Your task to perform on an android device: Go to internet settings Image 0: 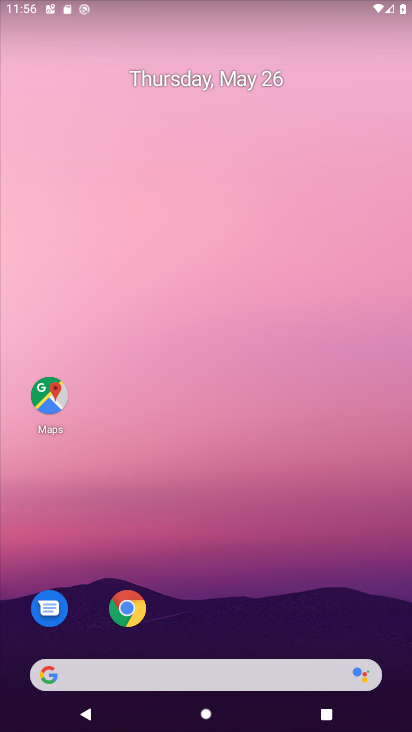
Step 0: drag from (397, 706) to (358, 241)
Your task to perform on an android device: Go to internet settings Image 1: 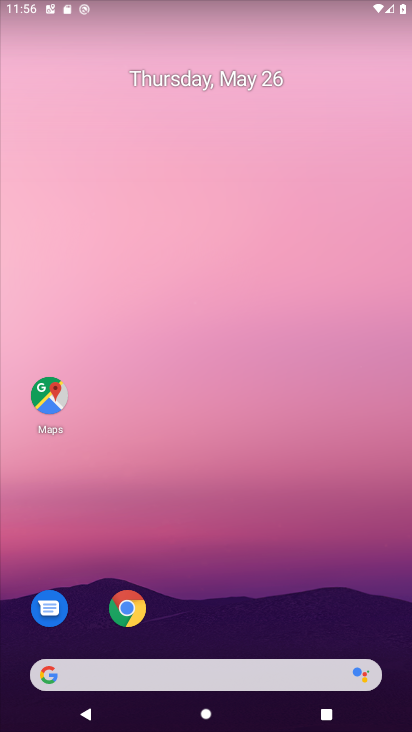
Step 1: drag from (394, 676) to (319, 83)
Your task to perform on an android device: Go to internet settings Image 2: 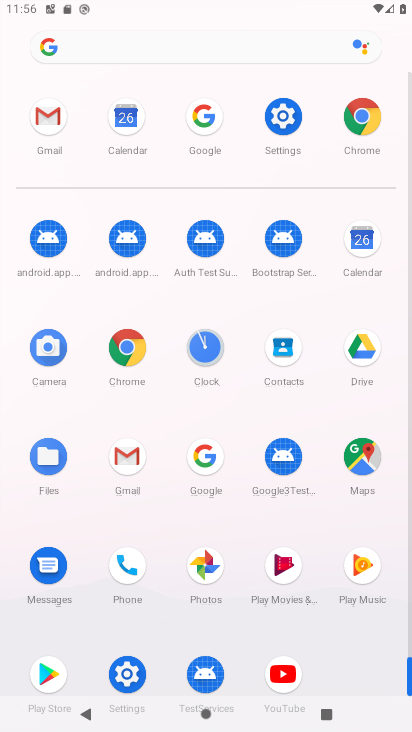
Step 2: click (281, 125)
Your task to perform on an android device: Go to internet settings Image 3: 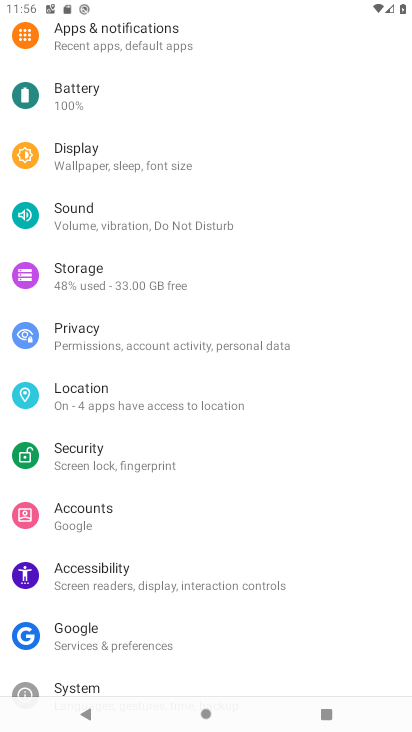
Step 3: drag from (285, 116) to (339, 583)
Your task to perform on an android device: Go to internet settings Image 4: 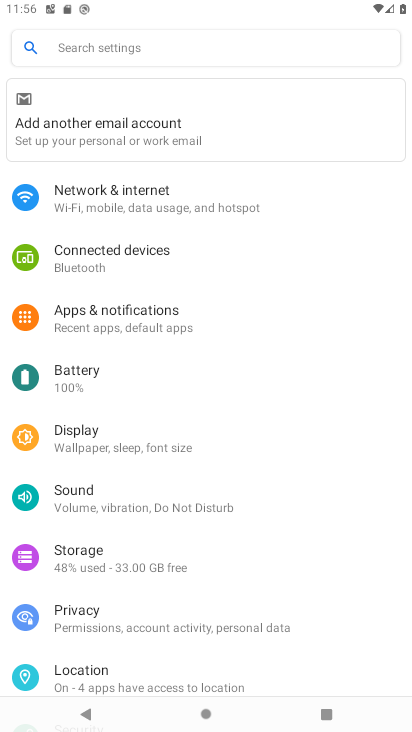
Step 4: drag from (314, 85) to (361, 631)
Your task to perform on an android device: Go to internet settings Image 5: 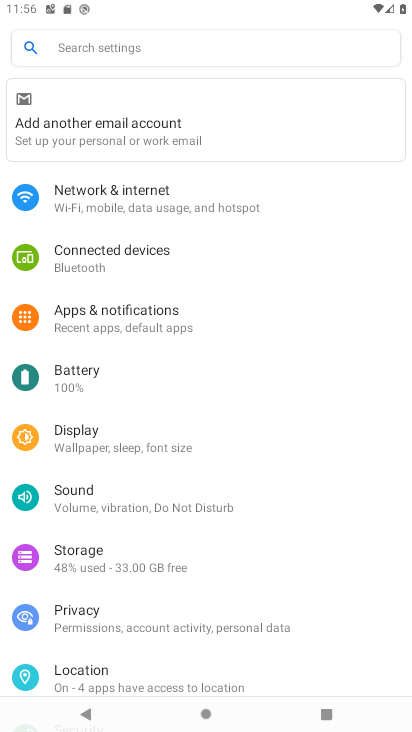
Step 5: drag from (324, 136) to (359, 609)
Your task to perform on an android device: Go to internet settings Image 6: 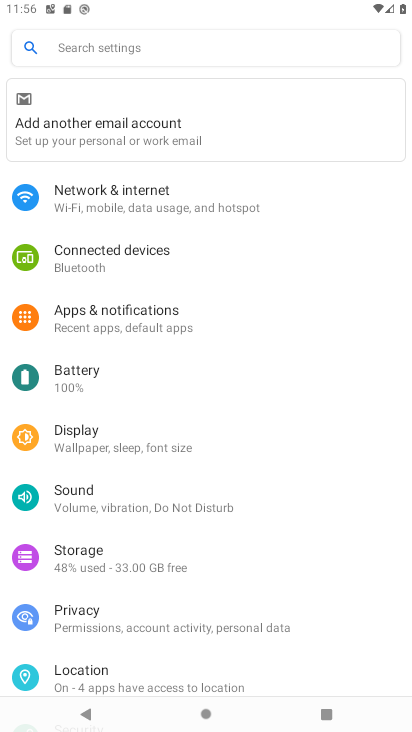
Step 6: click (111, 189)
Your task to perform on an android device: Go to internet settings Image 7: 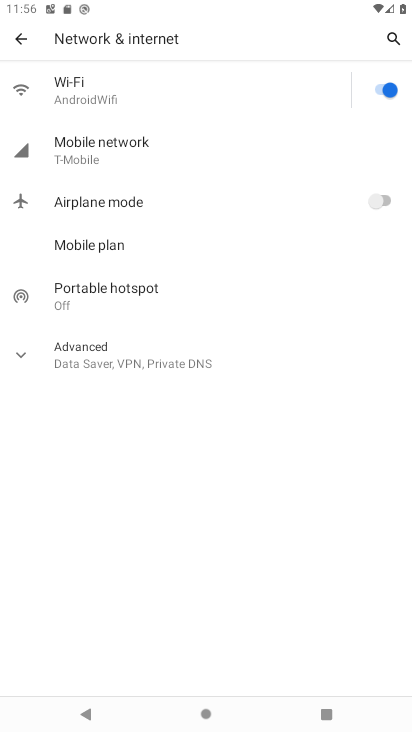
Step 7: click (102, 158)
Your task to perform on an android device: Go to internet settings Image 8: 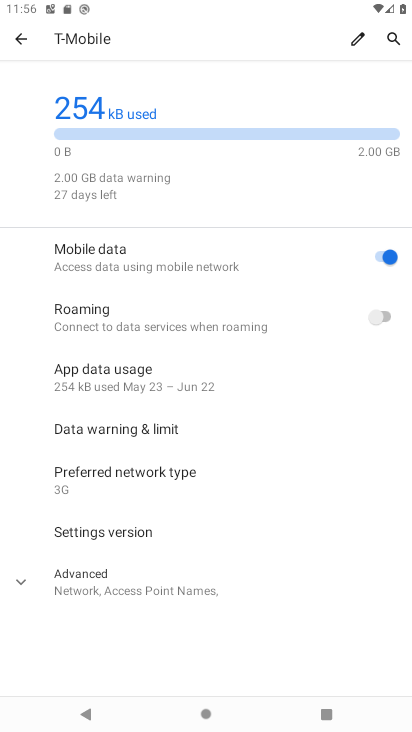
Step 8: click (18, 583)
Your task to perform on an android device: Go to internet settings Image 9: 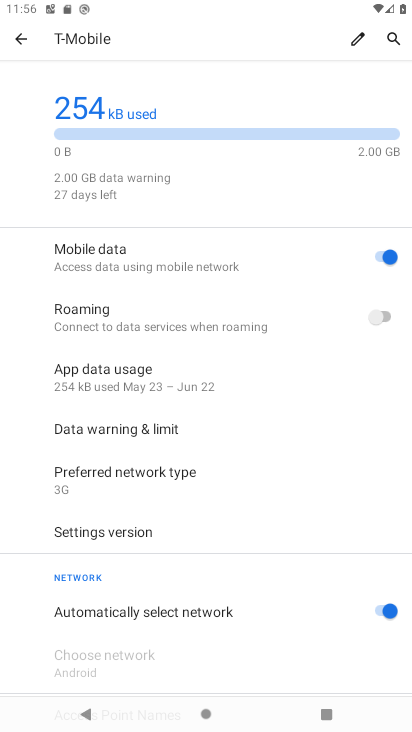
Step 9: task complete